Your task to perform on an android device: Open Yahoo.com Image 0: 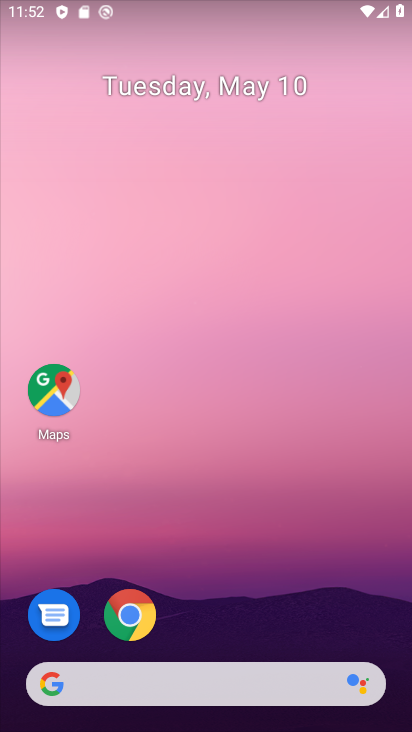
Step 0: click (133, 628)
Your task to perform on an android device: Open Yahoo.com Image 1: 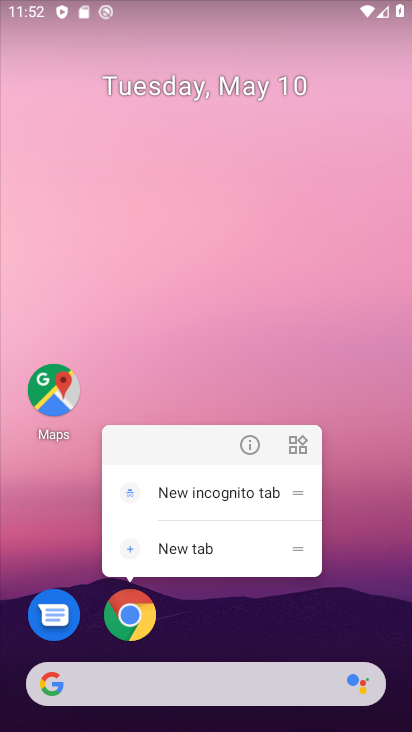
Step 1: click (133, 628)
Your task to perform on an android device: Open Yahoo.com Image 2: 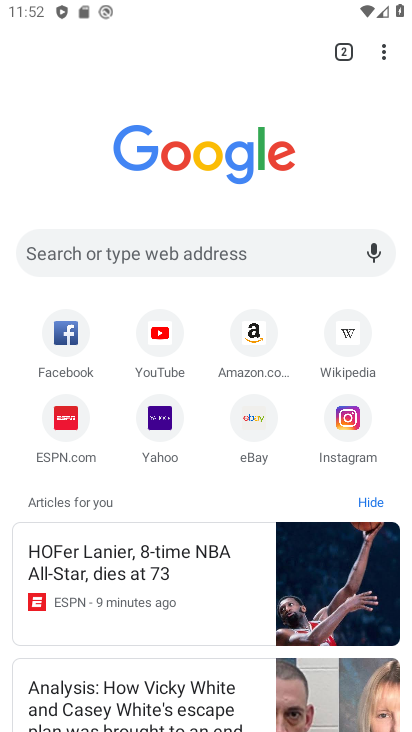
Step 2: click (165, 432)
Your task to perform on an android device: Open Yahoo.com Image 3: 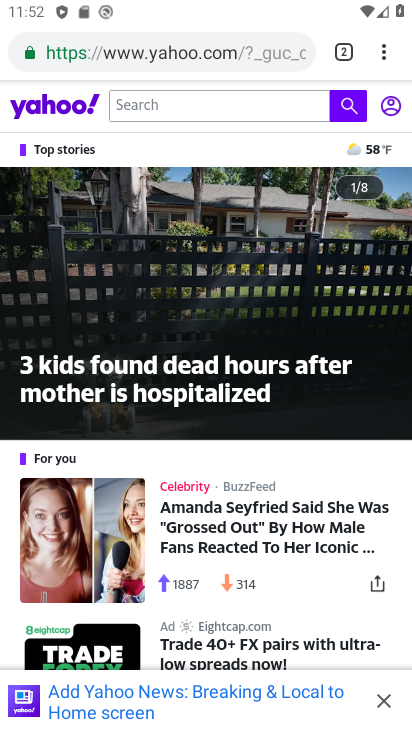
Step 3: task complete